Your task to perform on an android device: Go to Yahoo.com Image 0: 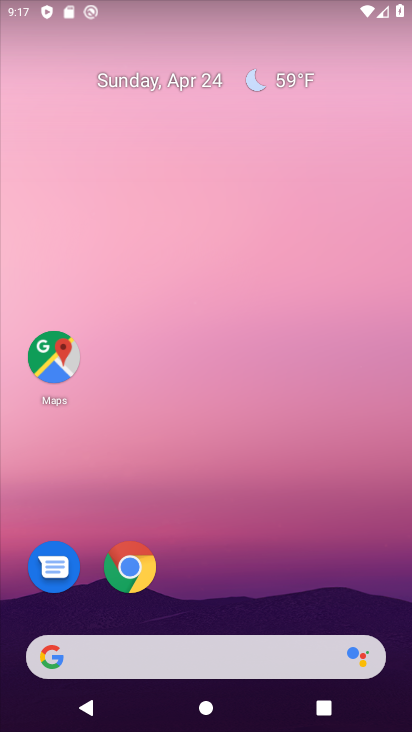
Step 0: click (130, 558)
Your task to perform on an android device: Go to Yahoo.com Image 1: 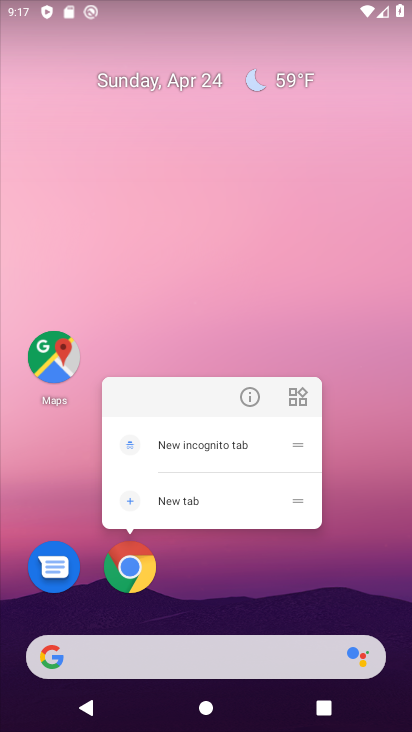
Step 1: click (130, 559)
Your task to perform on an android device: Go to Yahoo.com Image 2: 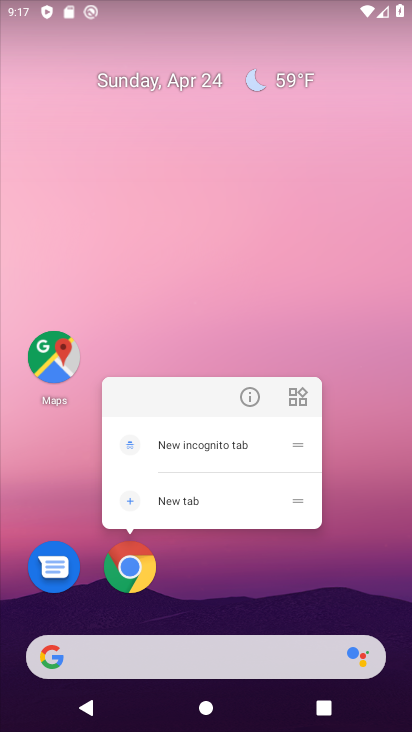
Step 2: click (124, 565)
Your task to perform on an android device: Go to Yahoo.com Image 3: 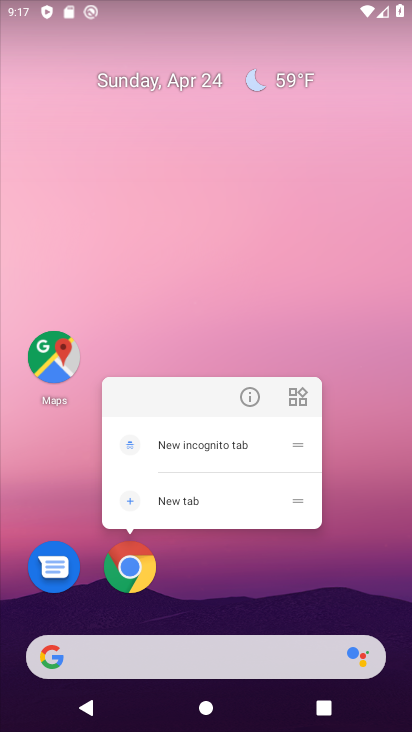
Step 3: click (128, 576)
Your task to perform on an android device: Go to Yahoo.com Image 4: 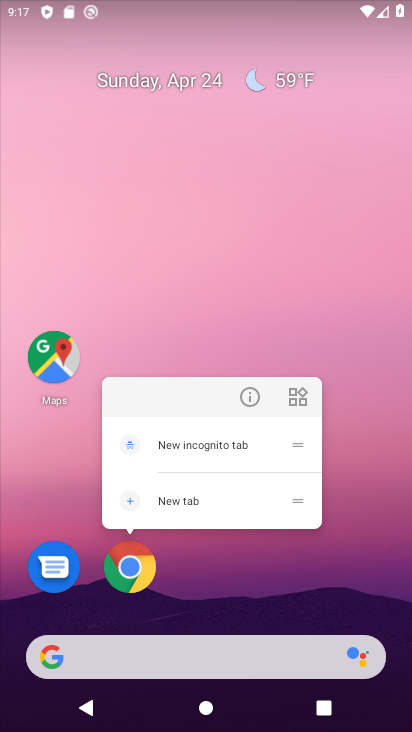
Step 4: click (127, 574)
Your task to perform on an android device: Go to Yahoo.com Image 5: 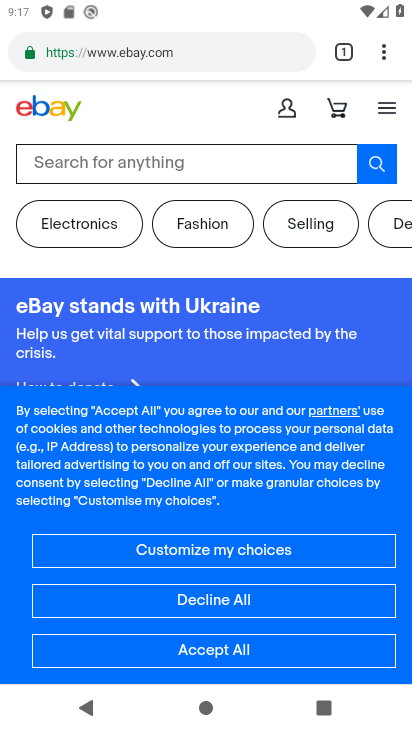
Step 5: click (214, 48)
Your task to perform on an android device: Go to Yahoo.com Image 6: 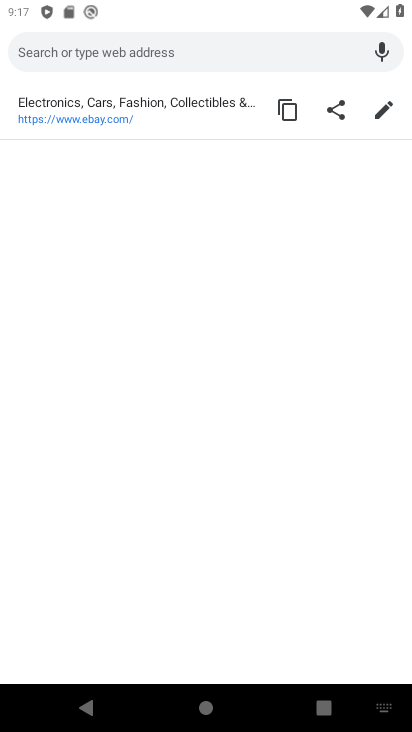
Step 6: type "Yahoo.com"
Your task to perform on an android device: Go to Yahoo.com Image 7: 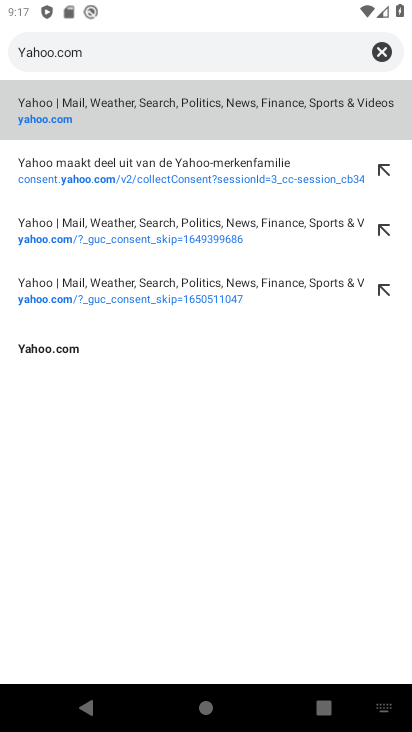
Step 7: click (68, 114)
Your task to perform on an android device: Go to Yahoo.com Image 8: 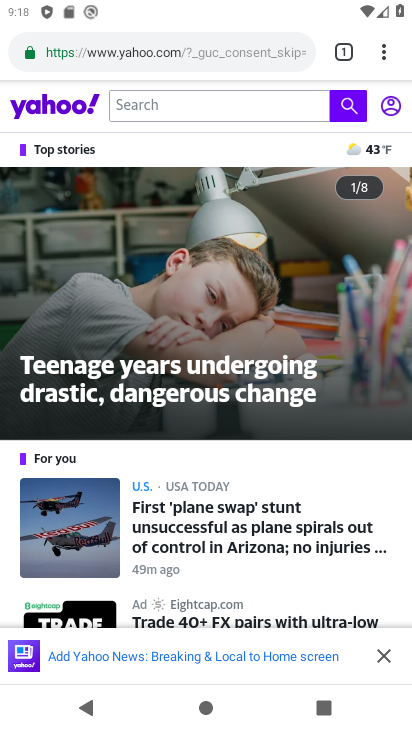
Step 8: task complete